Your task to perform on an android device: see sites visited before in the chrome app Image 0: 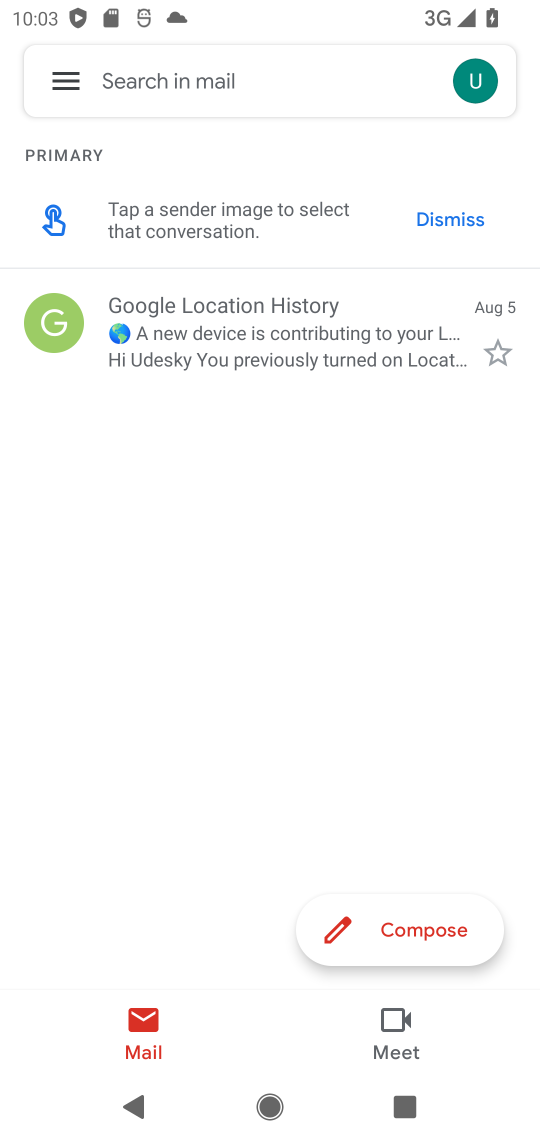
Step 0: press home button
Your task to perform on an android device: see sites visited before in the chrome app Image 1: 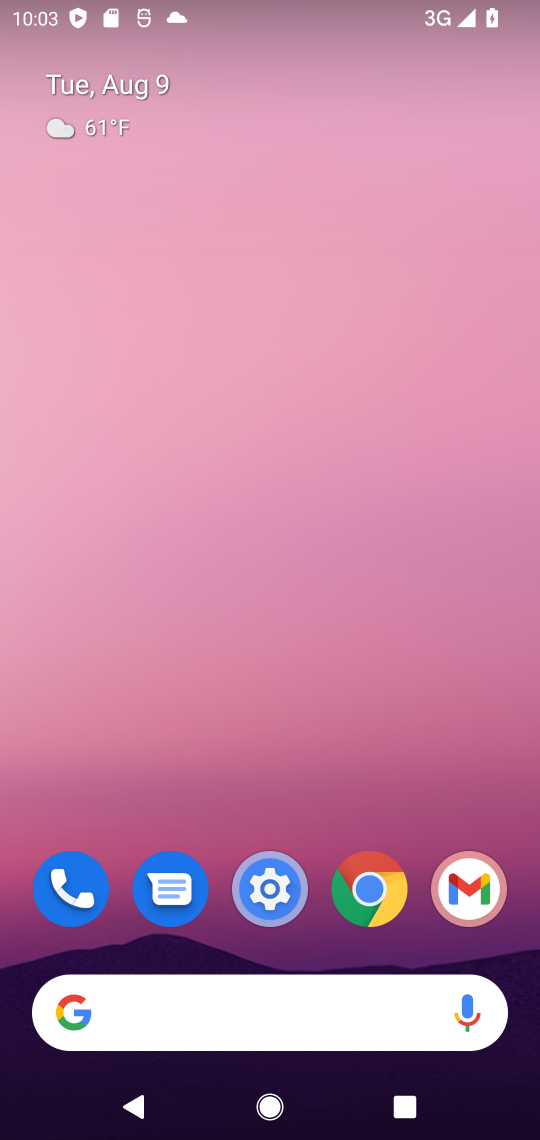
Step 1: drag from (384, 910) to (396, 121)
Your task to perform on an android device: see sites visited before in the chrome app Image 2: 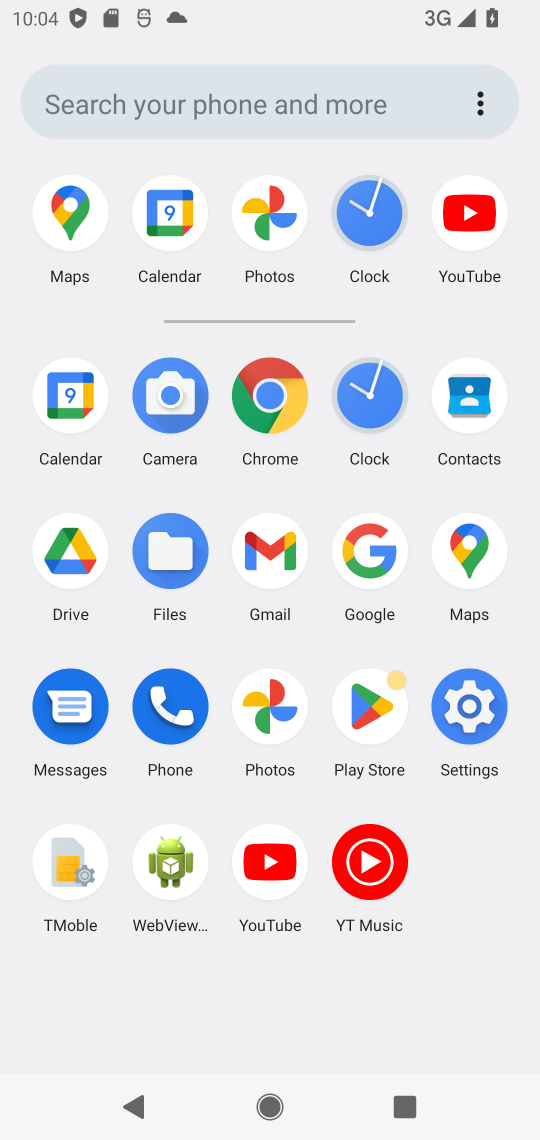
Step 2: click (267, 401)
Your task to perform on an android device: see sites visited before in the chrome app Image 3: 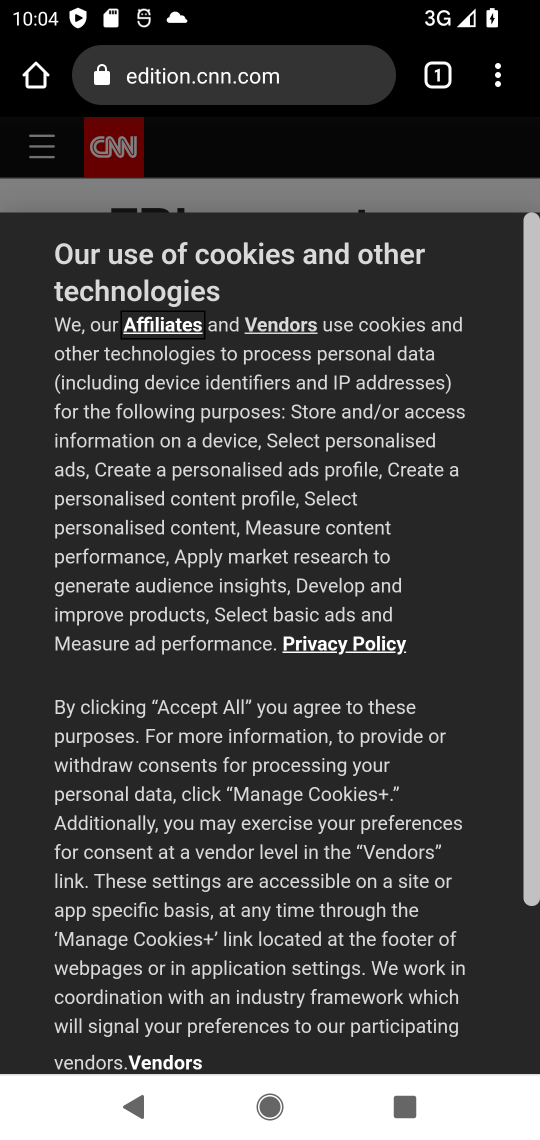
Step 3: task complete